Your task to perform on an android device: turn off airplane mode Image 0: 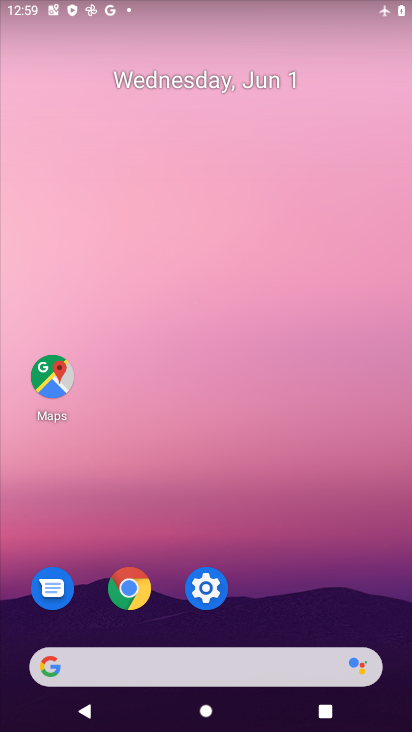
Step 0: click (213, 581)
Your task to perform on an android device: turn off airplane mode Image 1: 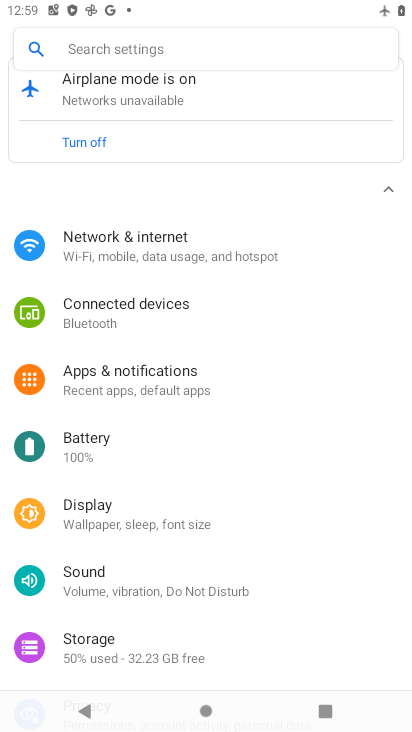
Step 1: click (184, 244)
Your task to perform on an android device: turn off airplane mode Image 2: 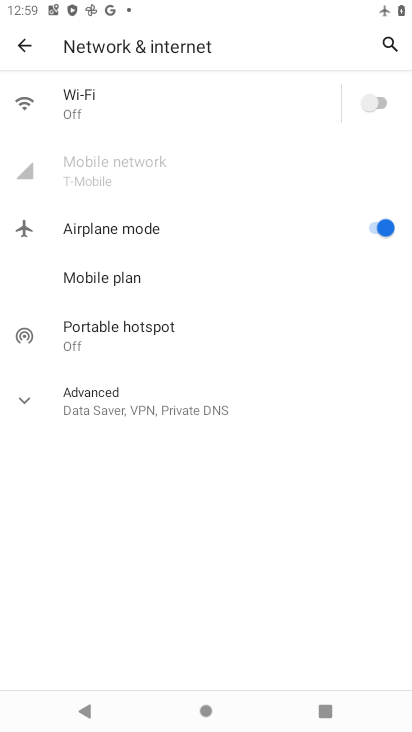
Step 2: click (385, 224)
Your task to perform on an android device: turn off airplane mode Image 3: 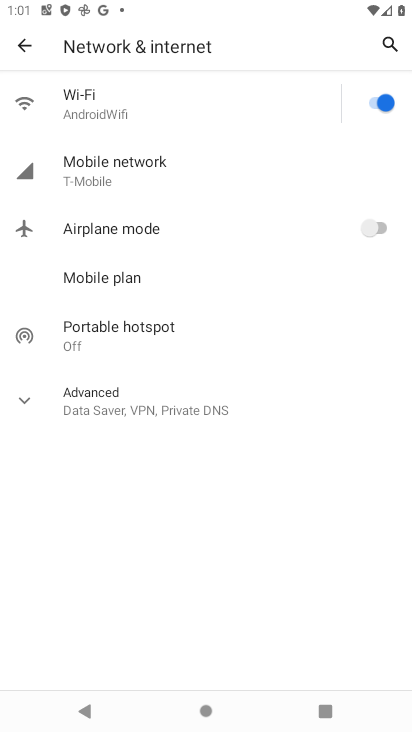
Step 3: task complete